Your task to perform on an android device: delete the emails in spam in the gmail app Image 0: 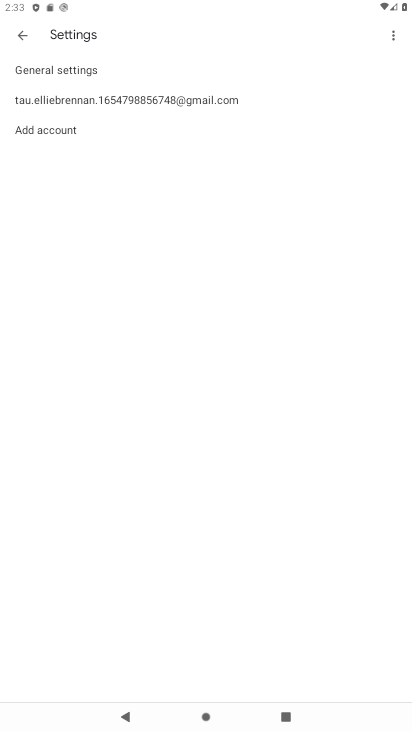
Step 0: press home button
Your task to perform on an android device: delete the emails in spam in the gmail app Image 1: 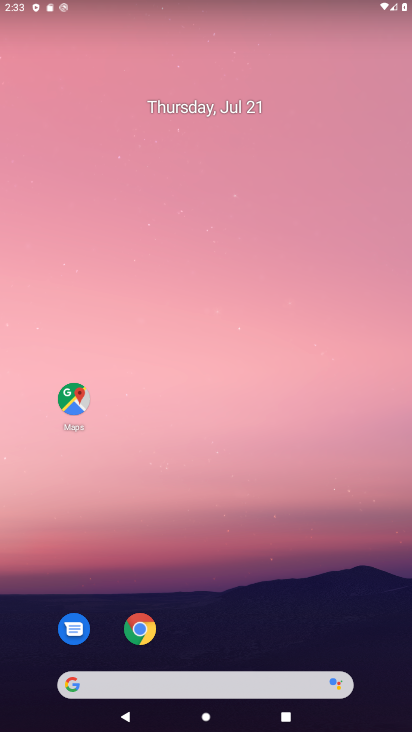
Step 1: drag from (331, 617) to (407, 7)
Your task to perform on an android device: delete the emails in spam in the gmail app Image 2: 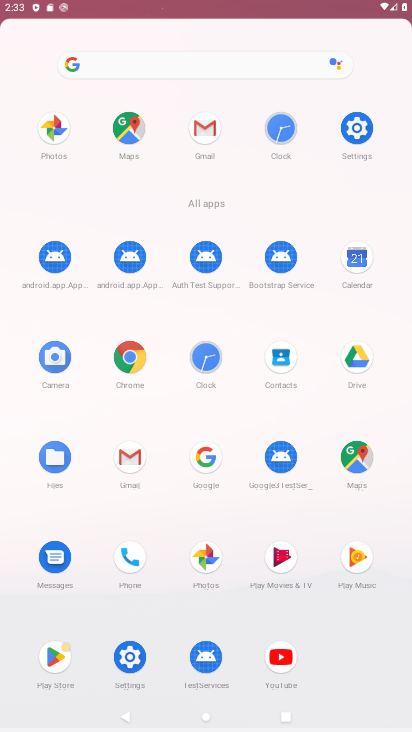
Step 2: drag from (312, 554) to (355, 57)
Your task to perform on an android device: delete the emails in spam in the gmail app Image 3: 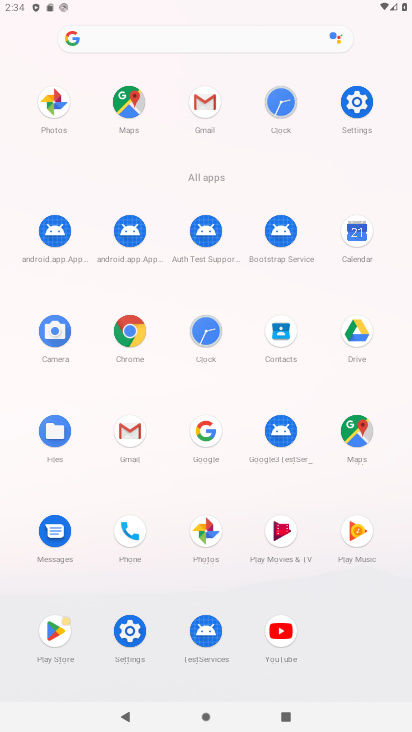
Step 3: click (141, 451)
Your task to perform on an android device: delete the emails in spam in the gmail app Image 4: 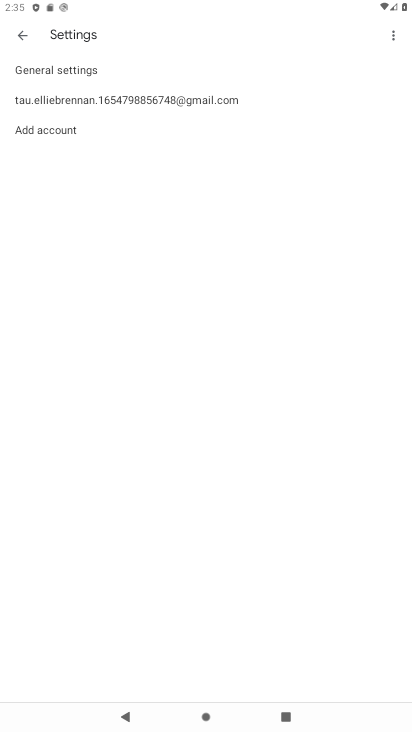
Step 4: click (35, 31)
Your task to perform on an android device: delete the emails in spam in the gmail app Image 5: 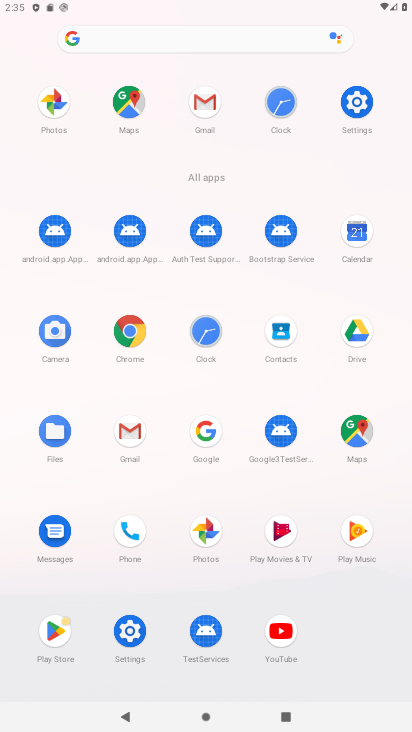
Step 5: click (124, 420)
Your task to perform on an android device: delete the emails in spam in the gmail app Image 6: 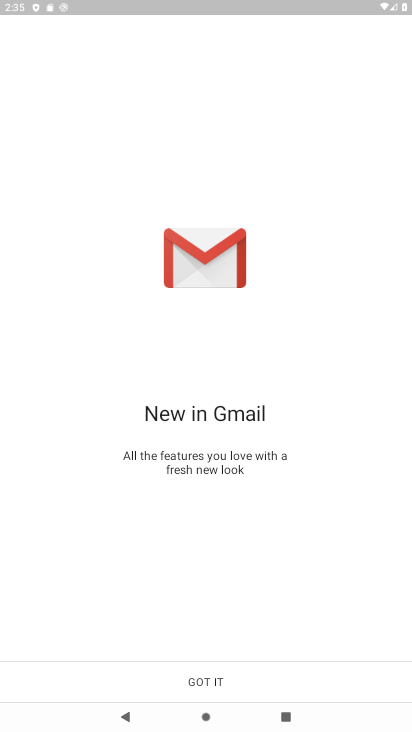
Step 6: click (133, 682)
Your task to perform on an android device: delete the emails in spam in the gmail app Image 7: 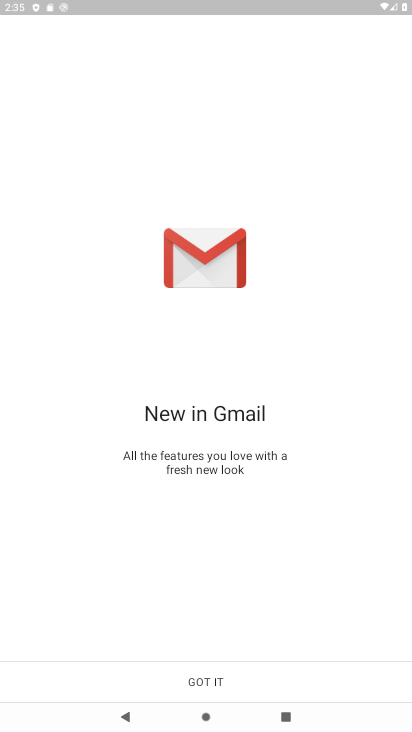
Step 7: click (133, 682)
Your task to perform on an android device: delete the emails in spam in the gmail app Image 8: 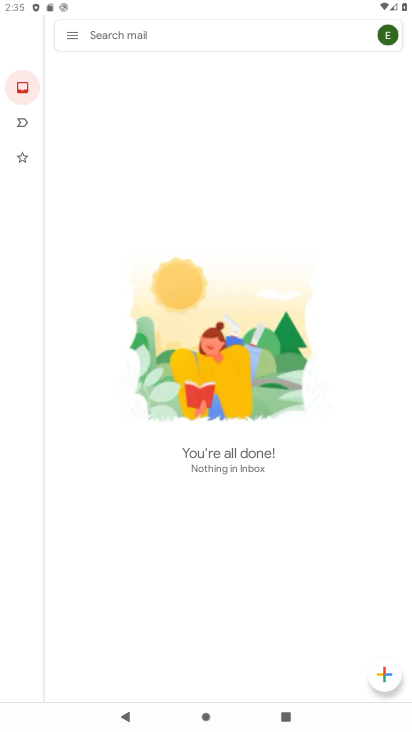
Step 8: task complete